Your task to perform on an android device: install app "Nova Launcher" Image 0: 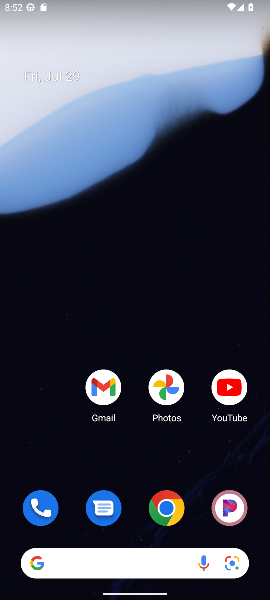
Step 0: drag from (197, 457) to (187, 1)
Your task to perform on an android device: install app "Nova Launcher" Image 1: 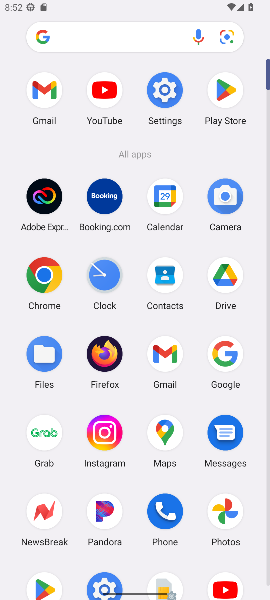
Step 1: click (225, 92)
Your task to perform on an android device: install app "Nova Launcher" Image 2: 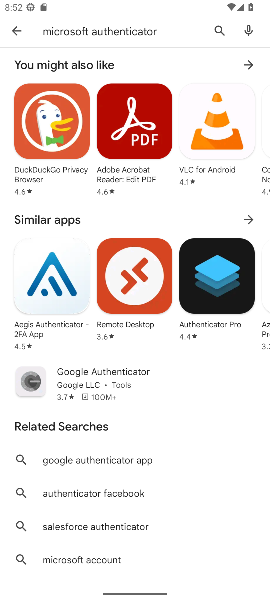
Step 2: click (218, 34)
Your task to perform on an android device: install app "Nova Launcher" Image 3: 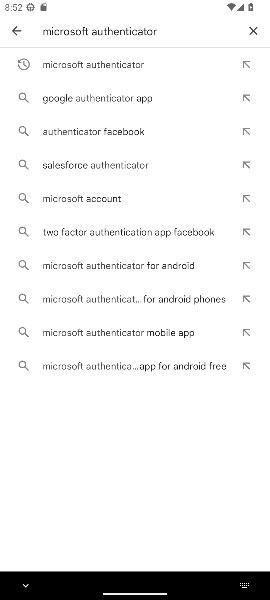
Step 3: click (252, 33)
Your task to perform on an android device: install app "Nova Launcher" Image 4: 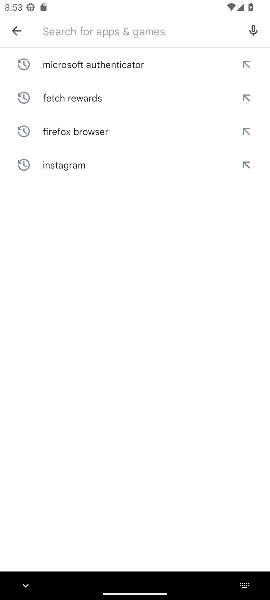
Step 4: type "nova launcher"
Your task to perform on an android device: install app "Nova Launcher" Image 5: 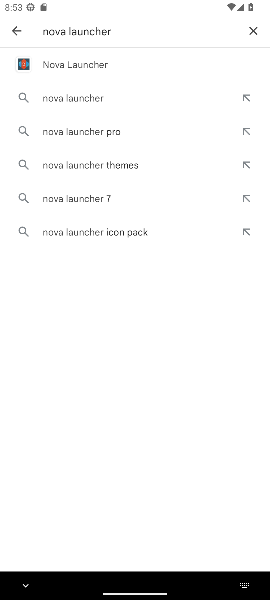
Step 5: click (155, 69)
Your task to perform on an android device: install app "Nova Launcher" Image 6: 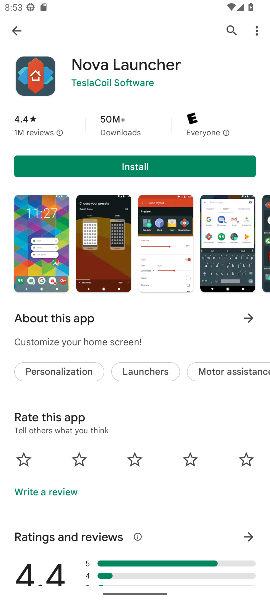
Step 6: click (158, 170)
Your task to perform on an android device: install app "Nova Launcher" Image 7: 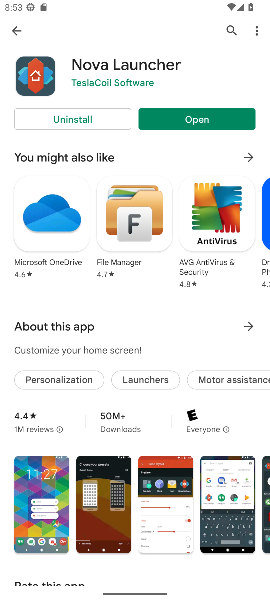
Step 7: task complete